Your task to perform on an android device: open app "eBay: The shopping marketplace" (install if not already installed) and enter user name: "articulated@icloud.com" and password: "excluding" Image 0: 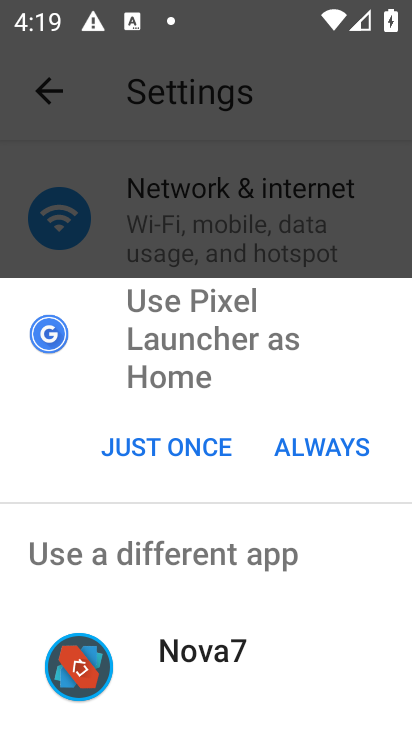
Step 0: click (211, 428)
Your task to perform on an android device: open app "eBay: The shopping marketplace" (install if not already installed) and enter user name: "articulated@icloud.com" and password: "excluding" Image 1: 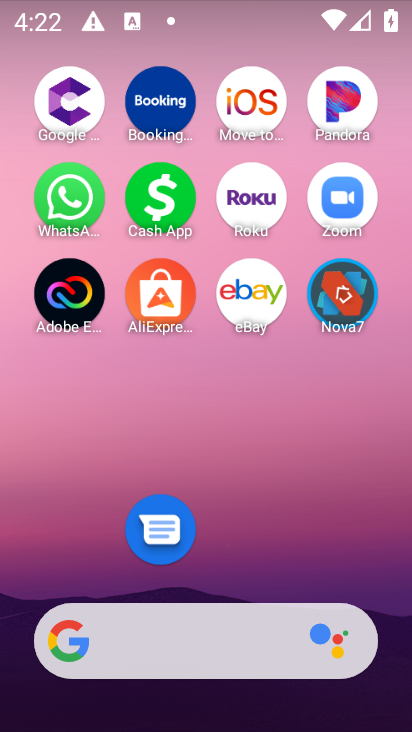
Step 1: drag from (284, 448) to (235, 35)
Your task to perform on an android device: open app "eBay: The shopping marketplace" (install if not already installed) and enter user name: "articulated@icloud.com" and password: "excluding" Image 2: 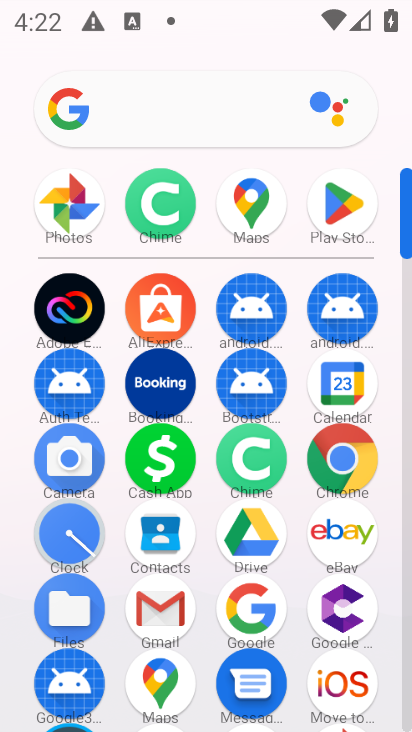
Step 2: click (352, 204)
Your task to perform on an android device: open app "eBay: The shopping marketplace" (install if not already installed) and enter user name: "articulated@icloud.com" and password: "excluding" Image 3: 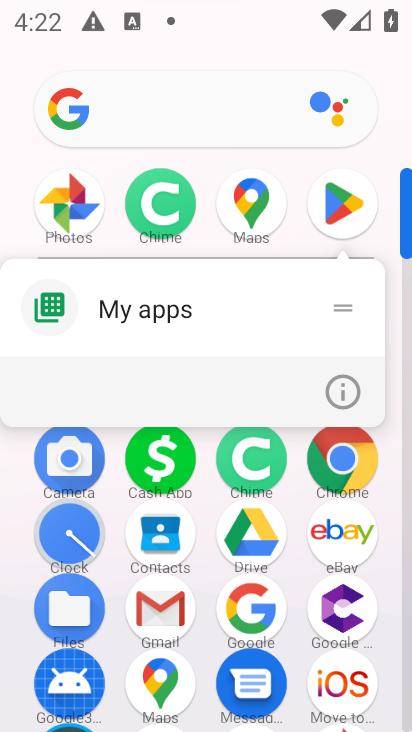
Step 3: click (344, 199)
Your task to perform on an android device: open app "eBay: The shopping marketplace" (install if not already installed) and enter user name: "articulated@icloud.com" and password: "excluding" Image 4: 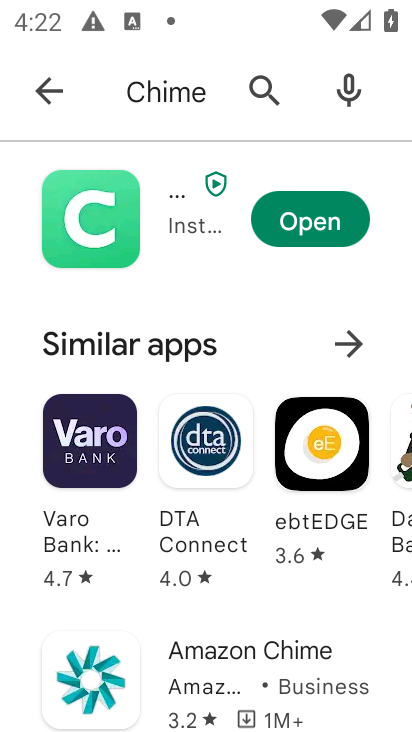
Step 4: press back button
Your task to perform on an android device: open app "eBay: The shopping marketplace" (install if not already installed) and enter user name: "articulated@icloud.com" and password: "excluding" Image 5: 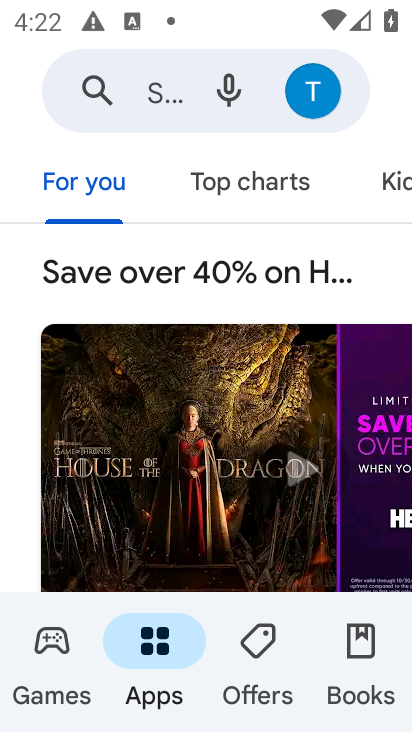
Step 5: click (156, 96)
Your task to perform on an android device: open app "eBay: The shopping marketplace" (install if not already installed) and enter user name: "articulated@icloud.com" and password: "excluding" Image 6: 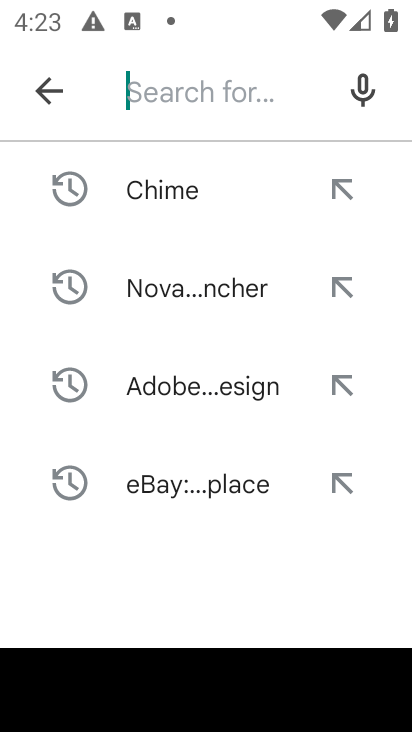
Step 6: type "eBay: The shopping marketplace"
Your task to perform on an android device: open app "eBay: The shopping marketplace" (install if not already installed) and enter user name: "articulated@icloud.com" and password: "excluding" Image 7: 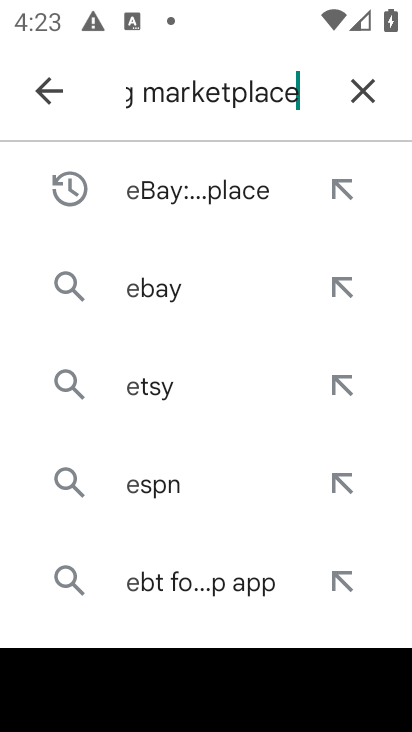
Step 7: press enter
Your task to perform on an android device: open app "eBay: The shopping marketplace" (install if not already installed) and enter user name: "articulated@icloud.com" and password: "excluding" Image 8: 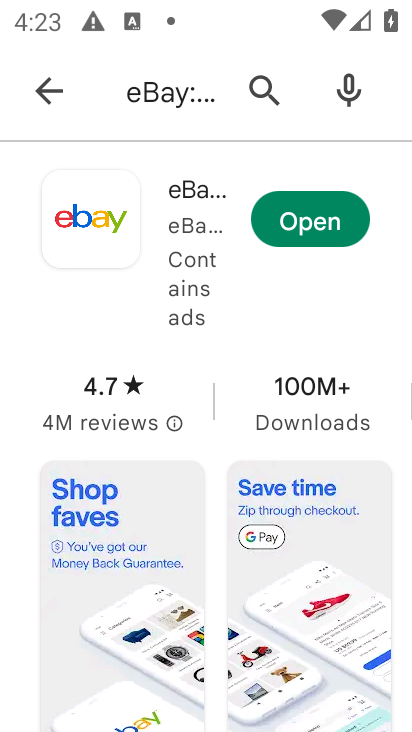
Step 8: click (285, 230)
Your task to perform on an android device: open app "eBay: The shopping marketplace" (install if not already installed) and enter user name: "articulated@icloud.com" and password: "excluding" Image 9: 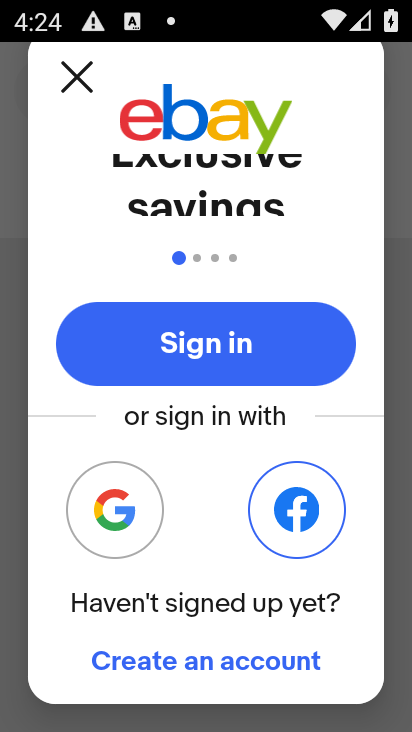
Step 9: click (178, 354)
Your task to perform on an android device: open app "eBay: The shopping marketplace" (install if not already installed) and enter user name: "articulated@icloud.com" and password: "excluding" Image 10: 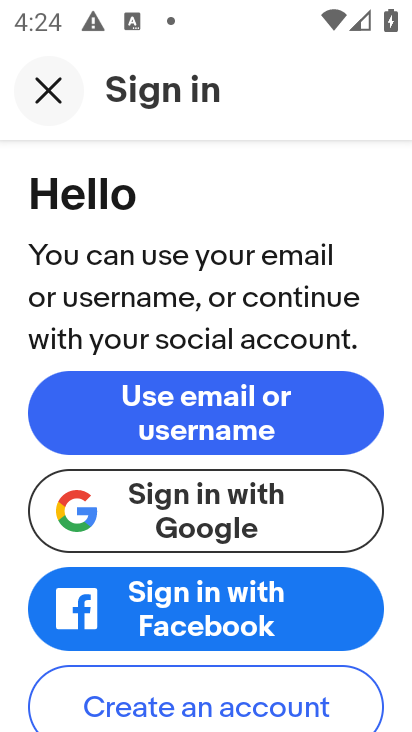
Step 10: drag from (394, 628) to (328, 220)
Your task to perform on an android device: open app "eBay: The shopping marketplace" (install if not already installed) and enter user name: "articulated@icloud.com" and password: "excluding" Image 11: 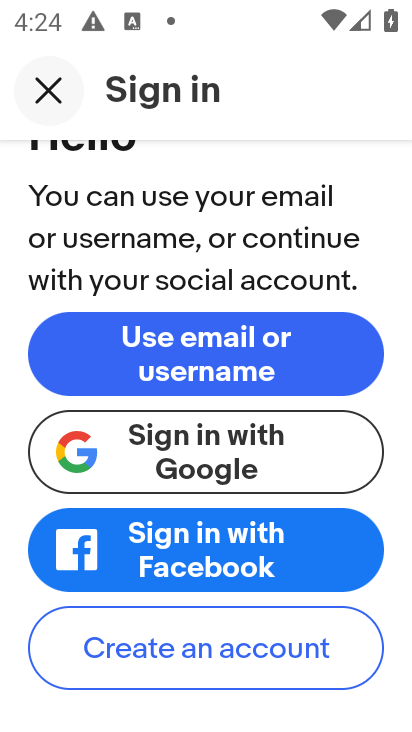
Step 11: click (263, 570)
Your task to perform on an android device: open app "eBay: The shopping marketplace" (install if not already installed) and enter user name: "articulated@icloud.com" and password: "excluding" Image 12: 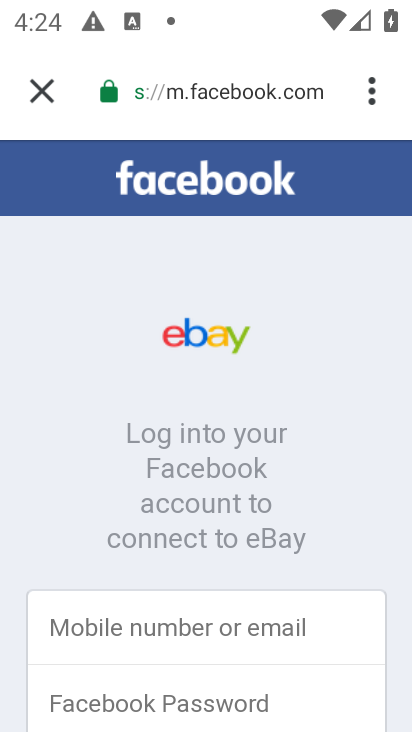
Step 12: drag from (216, 540) to (213, 210)
Your task to perform on an android device: open app "eBay: The shopping marketplace" (install if not already installed) and enter user name: "articulated@icloud.com" and password: "excluding" Image 13: 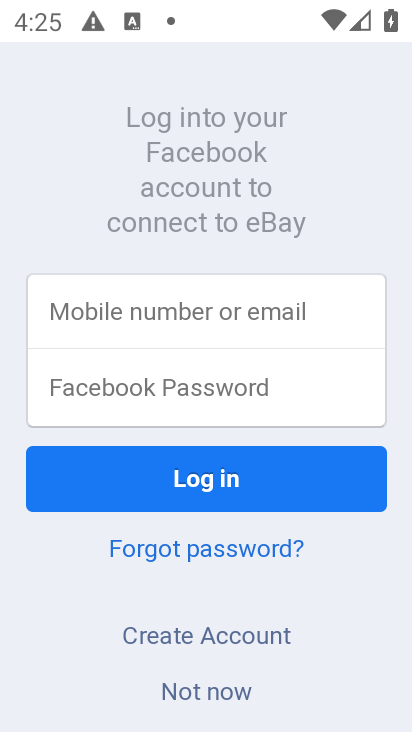
Step 13: click (164, 305)
Your task to perform on an android device: open app "eBay: The shopping marketplace" (install if not already installed) and enter user name: "articulated@icloud.com" and password: "excluding" Image 14: 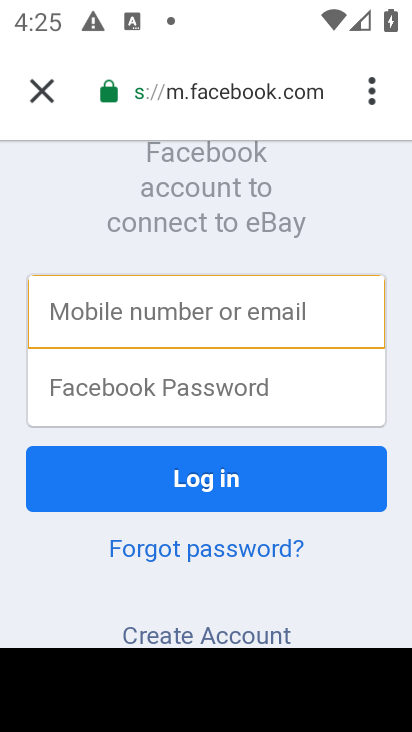
Step 14: type "articulated@icloud.com"
Your task to perform on an android device: open app "eBay: The shopping marketplace" (install if not already installed) and enter user name: "articulated@icloud.com" and password: "excluding" Image 15: 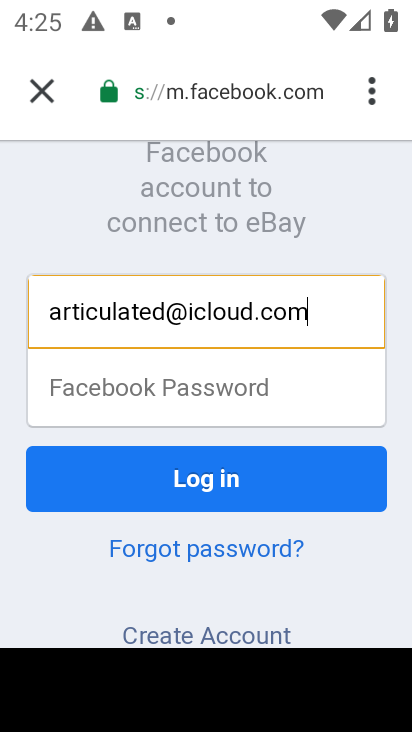
Step 15: press enter
Your task to perform on an android device: open app "eBay: The shopping marketplace" (install if not already installed) and enter user name: "articulated@icloud.com" and password: "excluding" Image 16: 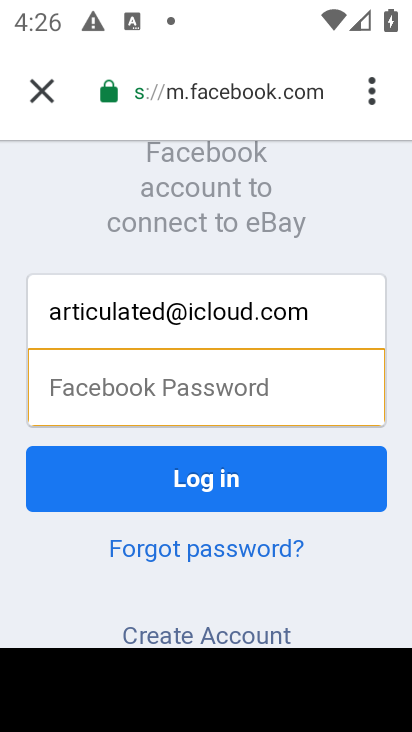
Step 16: type "excluding"
Your task to perform on an android device: open app "eBay: The shopping marketplace" (install if not already installed) and enter user name: "articulated@icloud.com" and password: "excluding" Image 17: 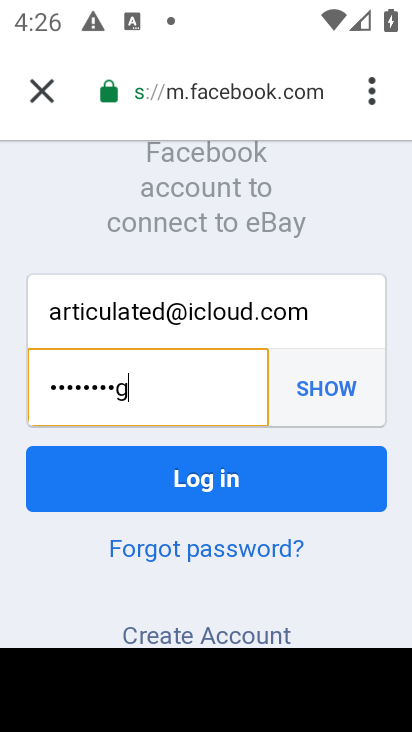
Step 17: press enter
Your task to perform on an android device: open app "eBay: The shopping marketplace" (install if not already installed) and enter user name: "articulated@icloud.com" and password: "excluding" Image 18: 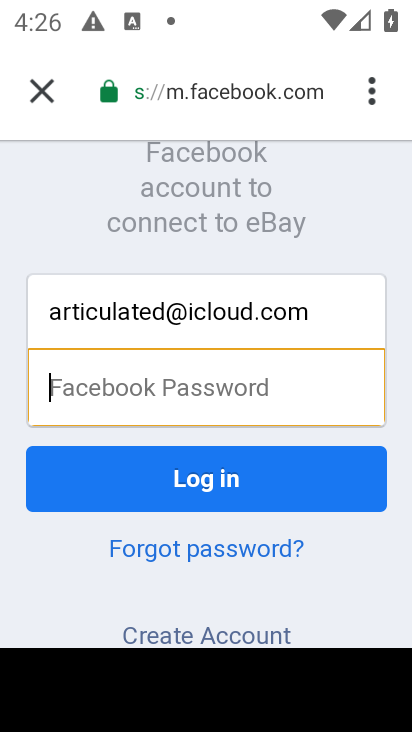
Step 18: type "excluding"
Your task to perform on an android device: open app "eBay: The shopping marketplace" (install if not already installed) and enter user name: "articulated@icloud.com" and password: "excluding" Image 19: 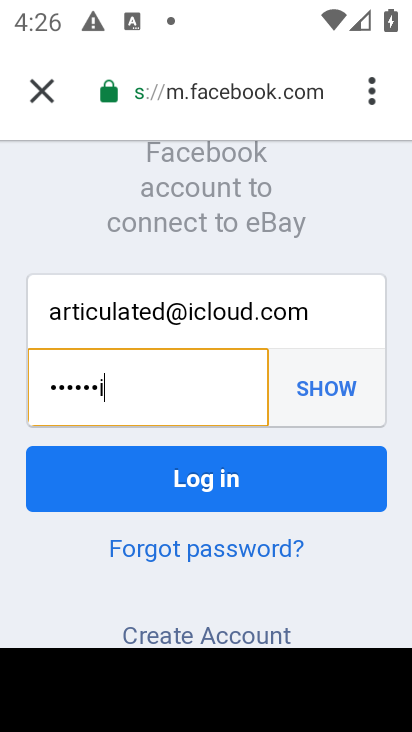
Step 19: press enter
Your task to perform on an android device: open app "eBay: The shopping marketplace" (install if not already installed) and enter user name: "articulated@icloud.com" and password: "excluding" Image 20: 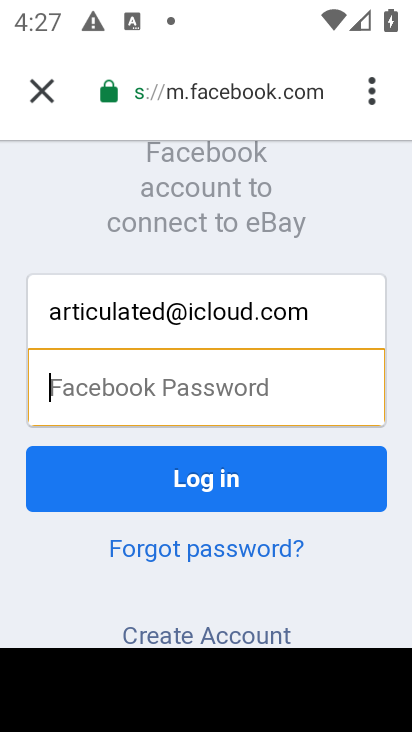
Step 20: task complete